Your task to perform on an android device: When is my next meeting? Image 0: 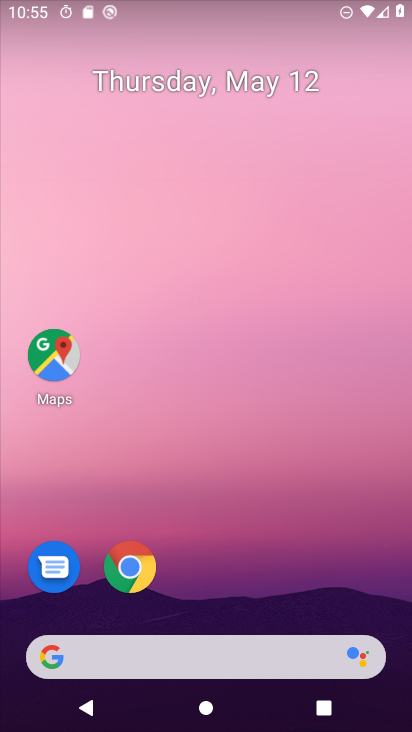
Step 0: drag from (254, 568) to (219, 18)
Your task to perform on an android device: When is my next meeting? Image 1: 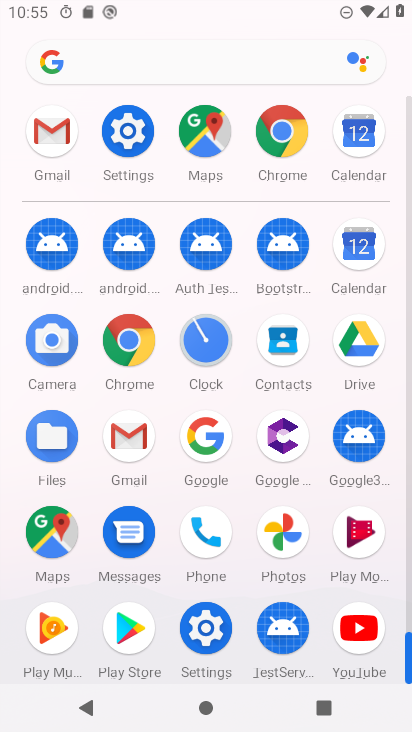
Step 1: click (368, 257)
Your task to perform on an android device: When is my next meeting? Image 2: 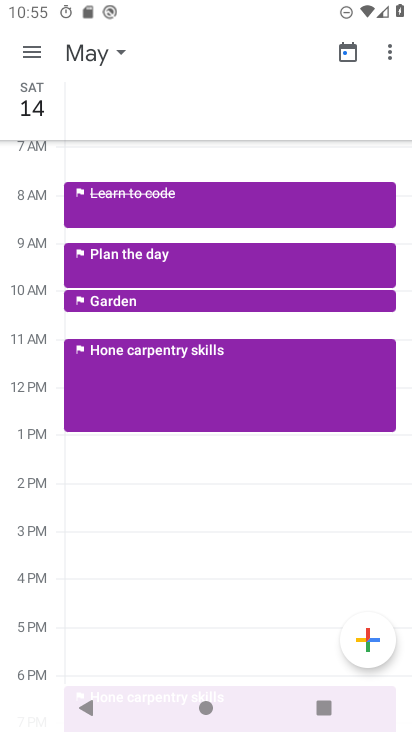
Step 2: click (40, 54)
Your task to perform on an android device: When is my next meeting? Image 3: 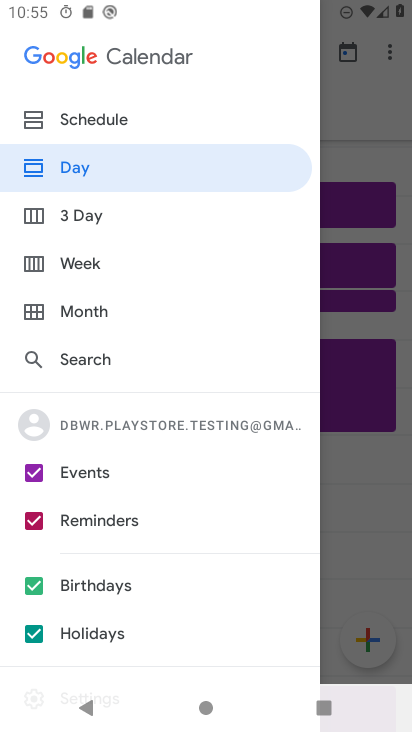
Step 3: click (33, 635)
Your task to perform on an android device: When is my next meeting? Image 4: 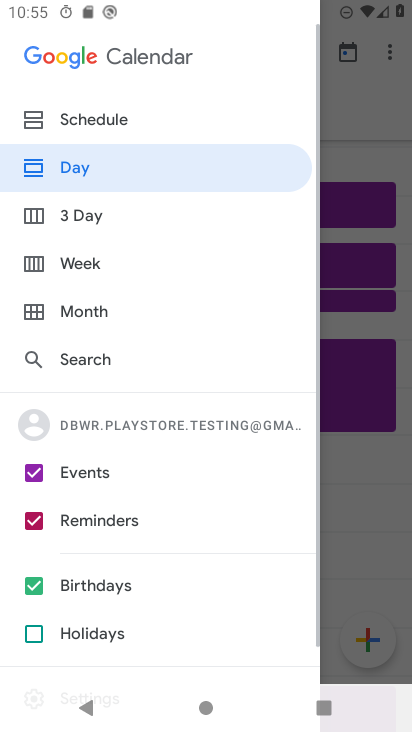
Step 4: click (35, 581)
Your task to perform on an android device: When is my next meeting? Image 5: 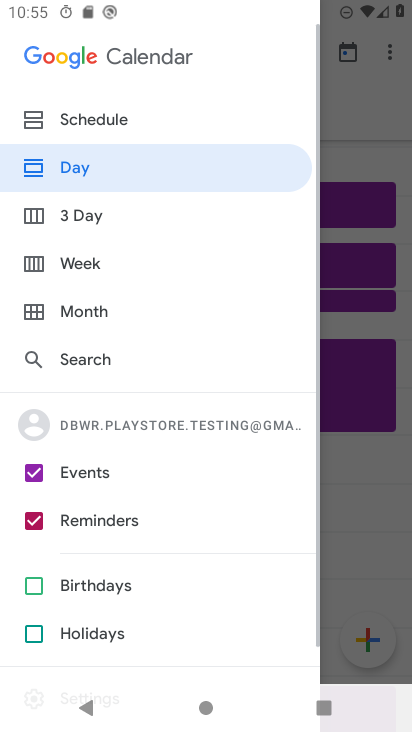
Step 5: drag from (114, 559) to (187, 300)
Your task to perform on an android device: When is my next meeting? Image 6: 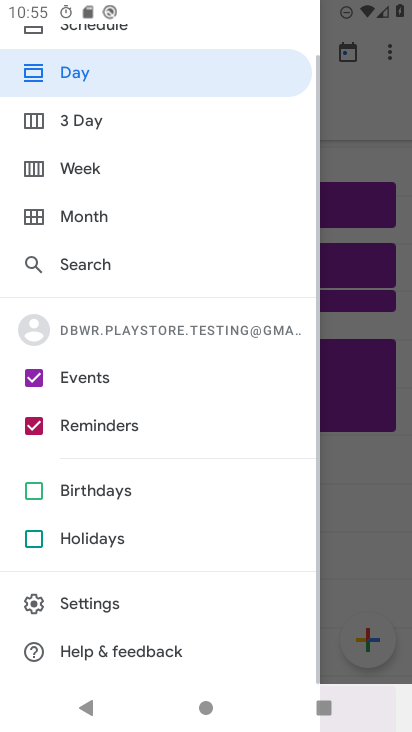
Step 6: click (349, 490)
Your task to perform on an android device: When is my next meeting? Image 7: 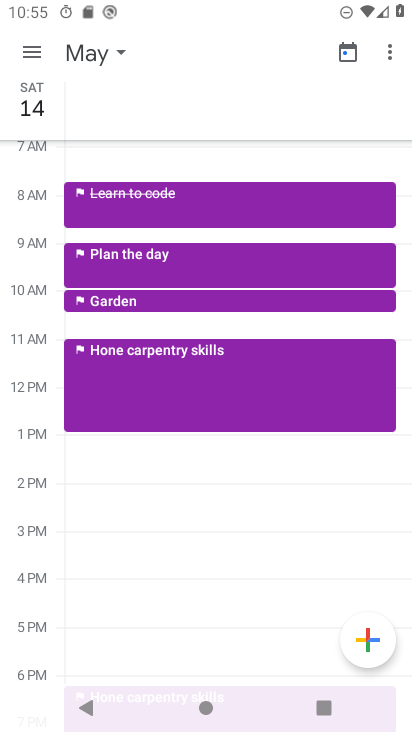
Step 7: task complete